Your task to perform on an android device: Show me recent news Image 0: 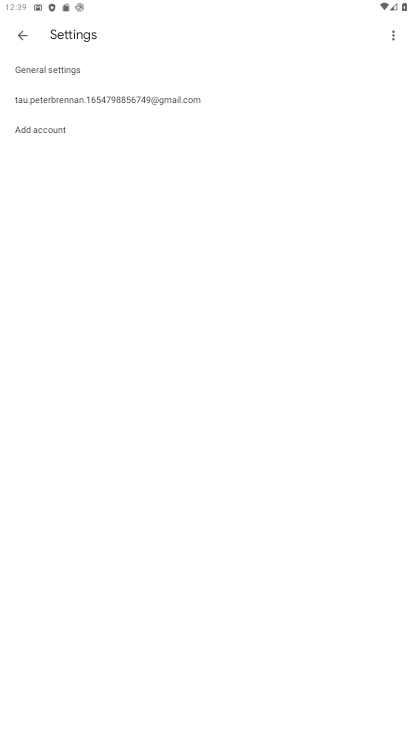
Step 0: press home button
Your task to perform on an android device: Show me recent news Image 1: 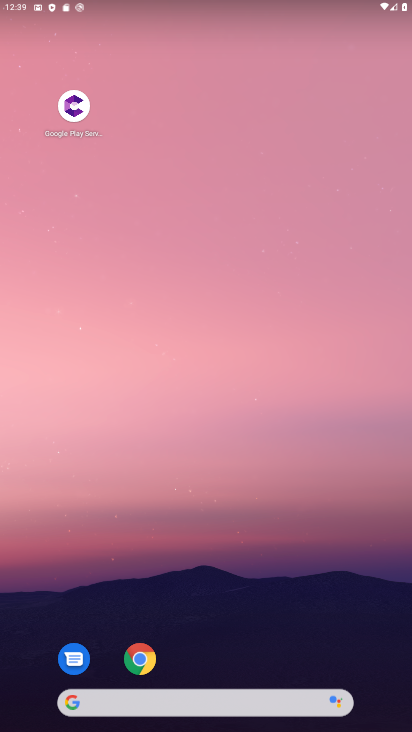
Step 1: click (218, 701)
Your task to perform on an android device: Show me recent news Image 2: 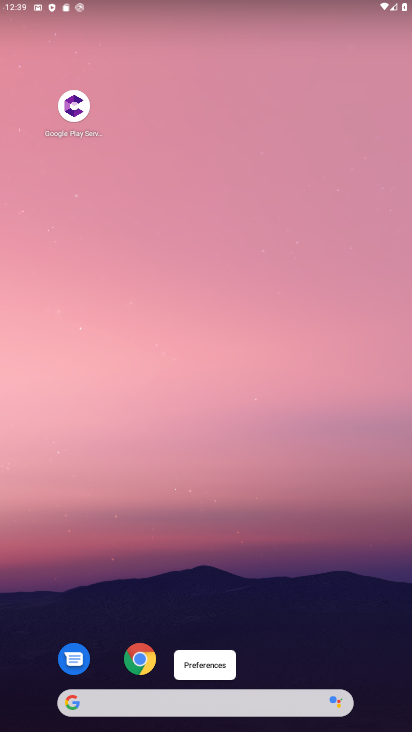
Step 2: click (228, 698)
Your task to perform on an android device: Show me recent news Image 3: 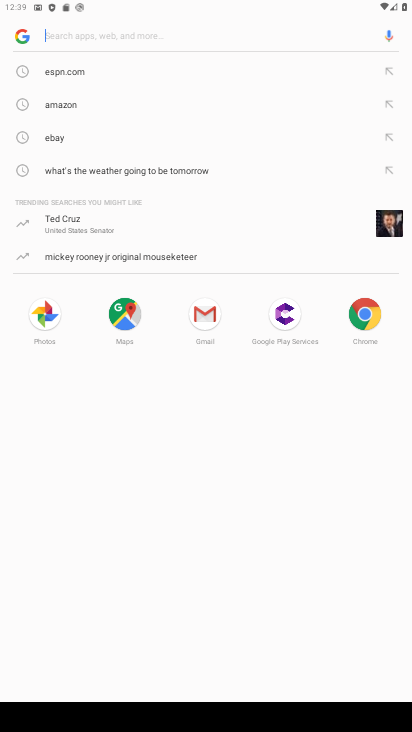
Step 3: type "recent news "
Your task to perform on an android device: Show me recent news Image 4: 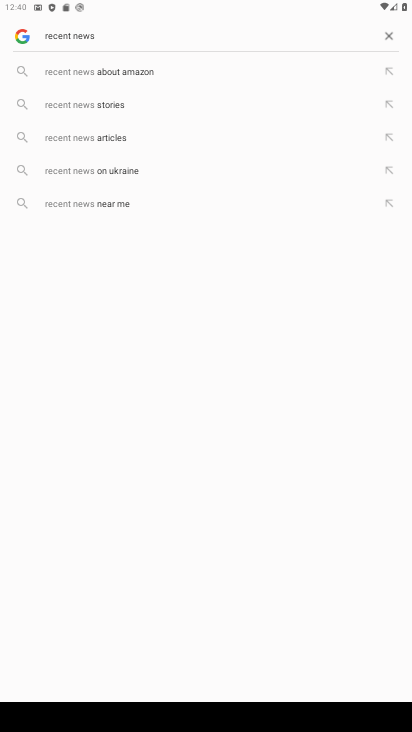
Step 4: click (75, 207)
Your task to perform on an android device: Show me recent news Image 5: 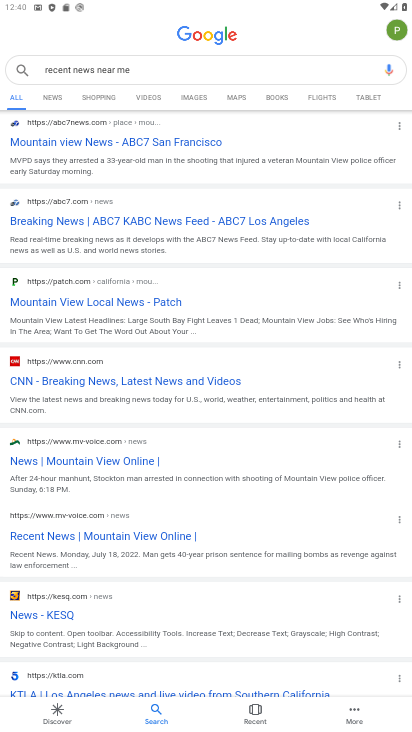
Step 5: task complete